Your task to perform on an android device: Open the stopwatch Image 0: 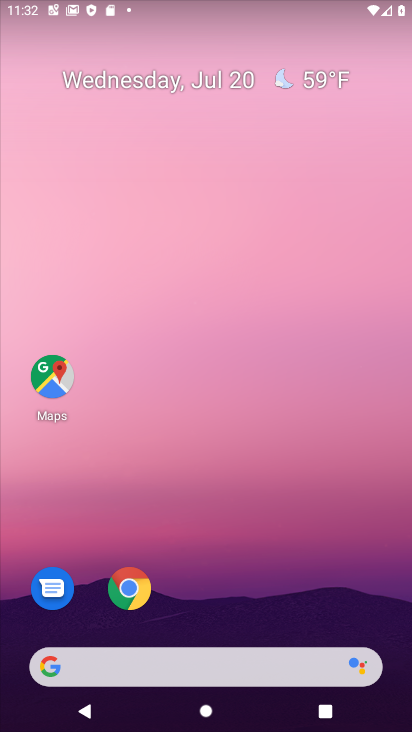
Step 0: click (166, 54)
Your task to perform on an android device: Open the stopwatch Image 1: 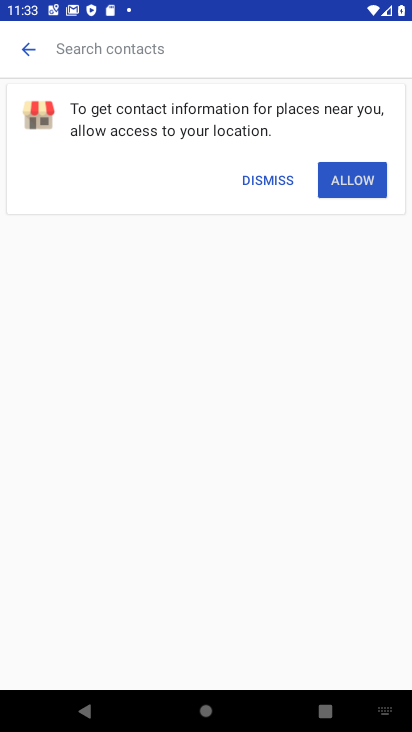
Step 1: press home button
Your task to perform on an android device: Open the stopwatch Image 2: 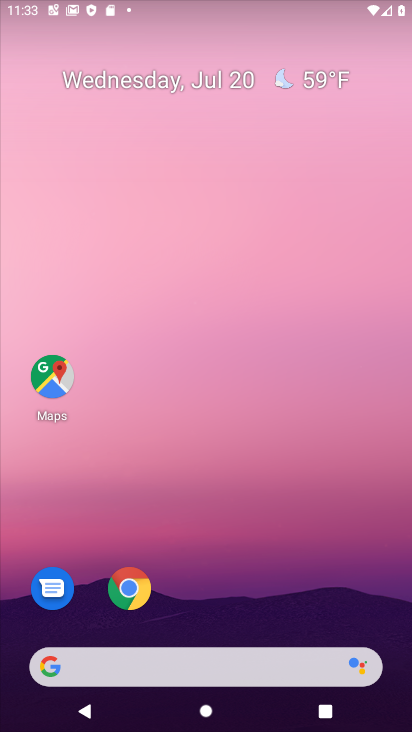
Step 2: drag from (210, 619) to (189, 7)
Your task to perform on an android device: Open the stopwatch Image 3: 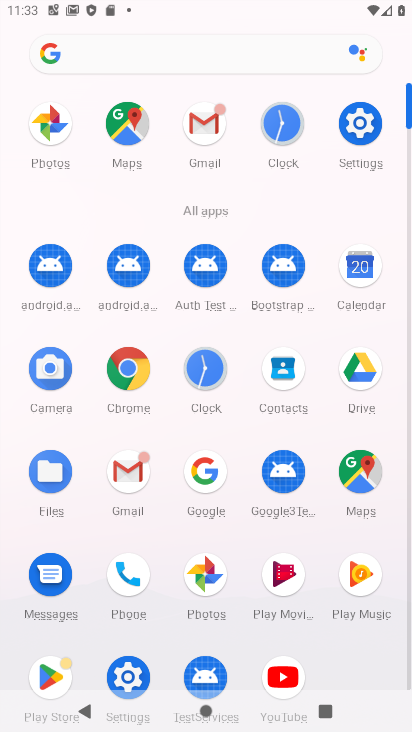
Step 3: click (209, 366)
Your task to perform on an android device: Open the stopwatch Image 4: 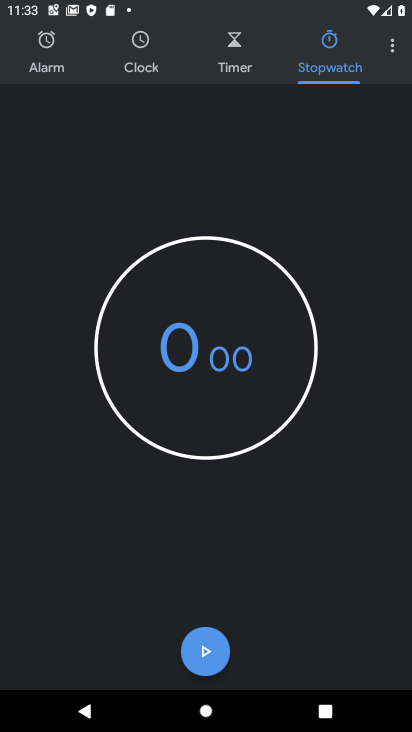
Step 4: task complete